Your task to perform on an android device: Open ESPN.com Image 0: 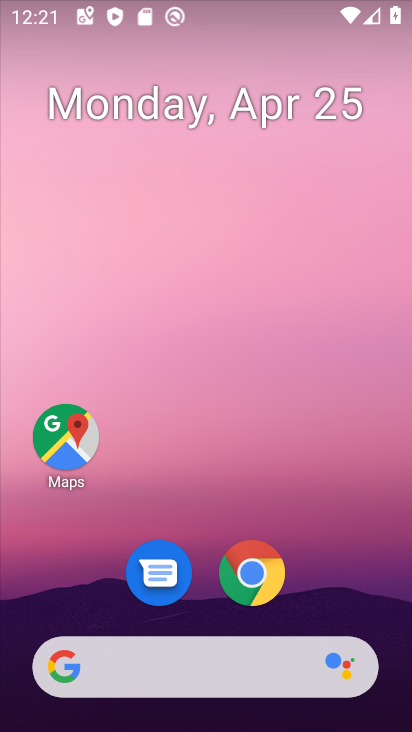
Step 0: click (266, 550)
Your task to perform on an android device: Open ESPN.com Image 1: 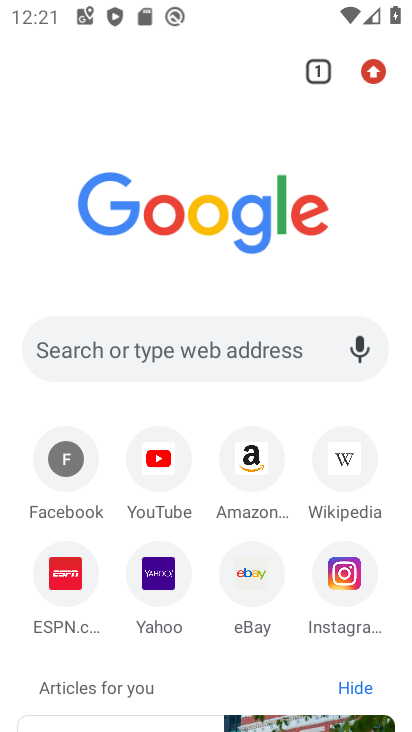
Step 1: click (37, 565)
Your task to perform on an android device: Open ESPN.com Image 2: 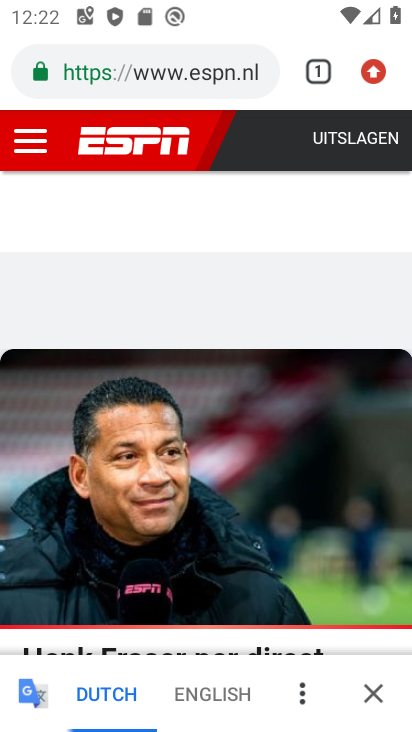
Step 2: task complete